Your task to perform on an android device: check google app version Image 0: 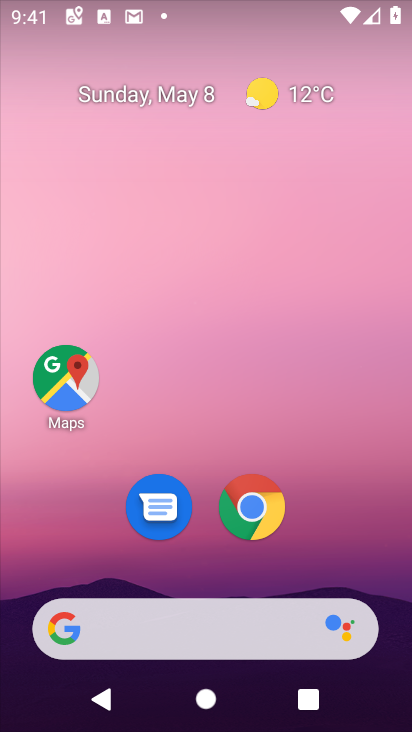
Step 0: drag from (256, 710) to (239, 31)
Your task to perform on an android device: check google app version Image 1: 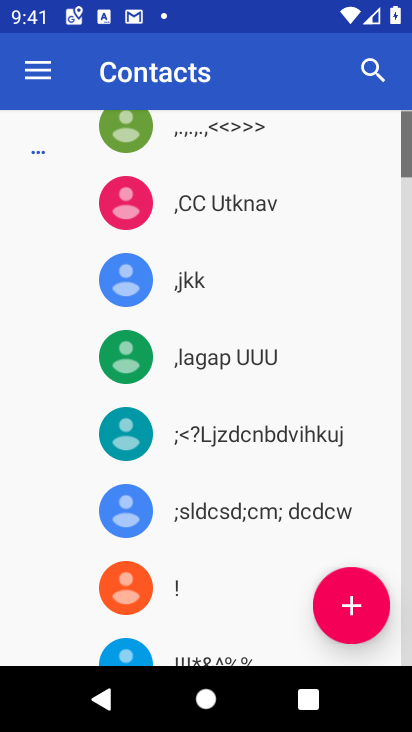
Step 1: press home button
Your task to perform on an android device: check google app version Image 2: 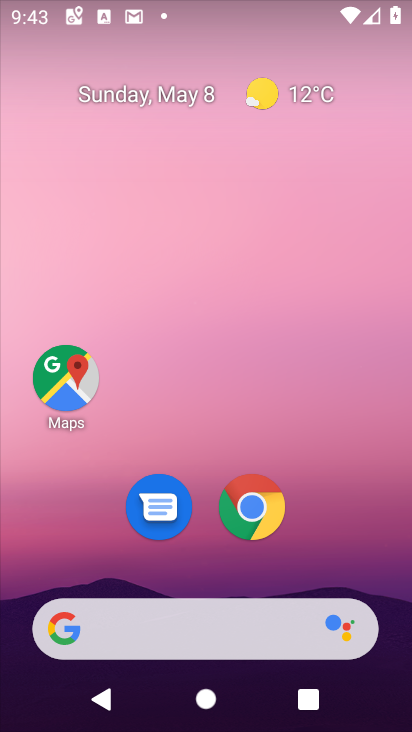
Step 2: drag from (233, 488) to (242, 50)
Your task to perform on an android device: check google app version Image 3: 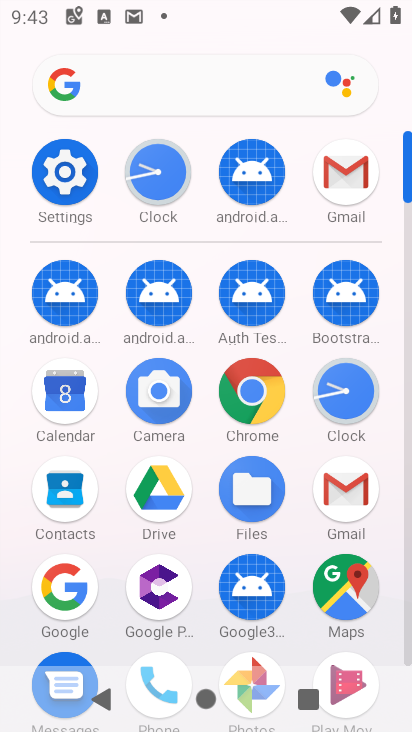
Step 3: click (69, 595)
Your task to perform on an android device: check google app version Image 4: 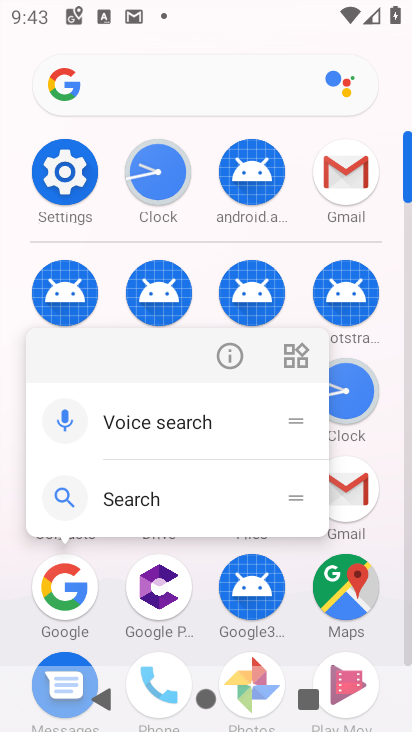
Step 4: click (222, 350)
Your task to perform on an android device: check google app version Image 5: 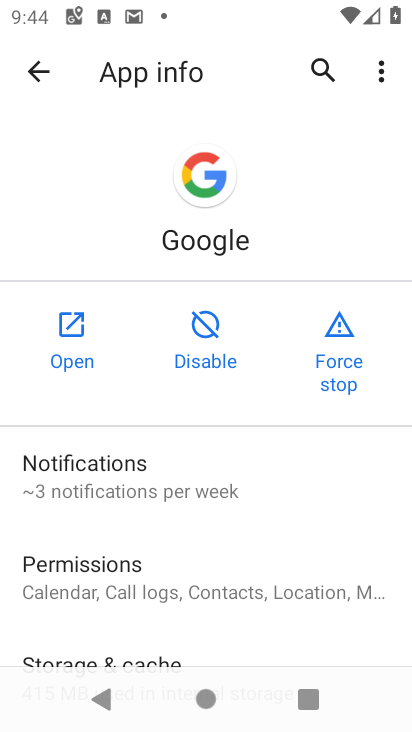
Step 5: click (174, 33)
Your task to perform on an android device: check google app version Image 6: 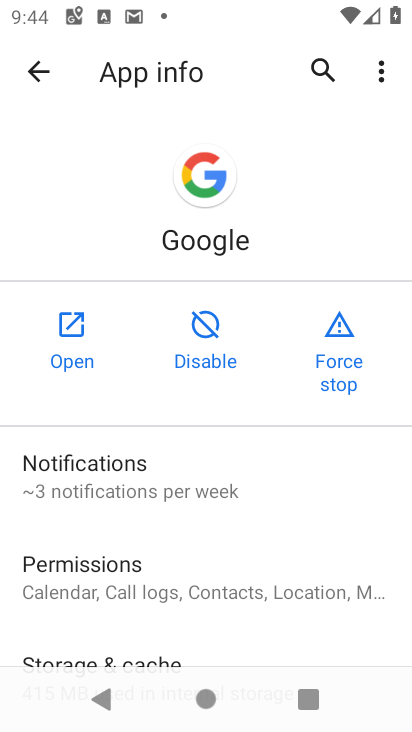
Step 6: drag from (224, 597) to (27, 0)
Your task to perform on an android device: check google app version Image 7: 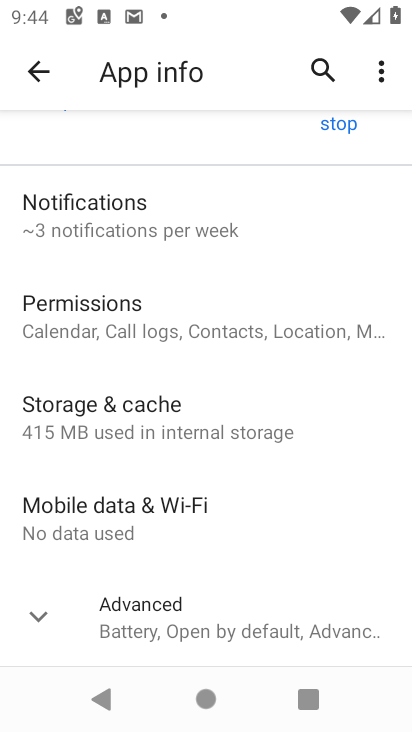
Step 7: click (184, 626)
Your task to perform on an android device: check google app version Image 8: 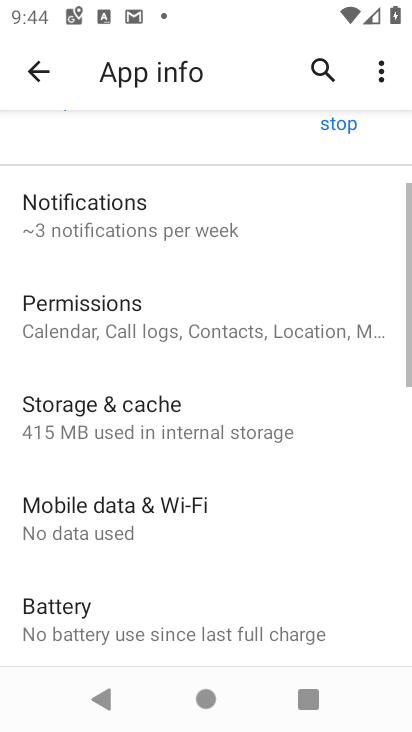
Step 8: task complete